Your task to perform on an android device: turn off notifications settings in the gmail app Image 0: 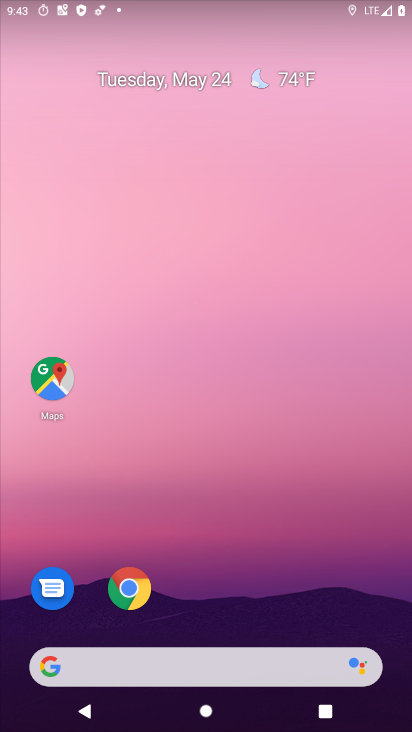
Step 0: drag from (239, 588) to (178, 17)
Your task to perform on an android device: turn off notifications settings in the gmail app Image 1: 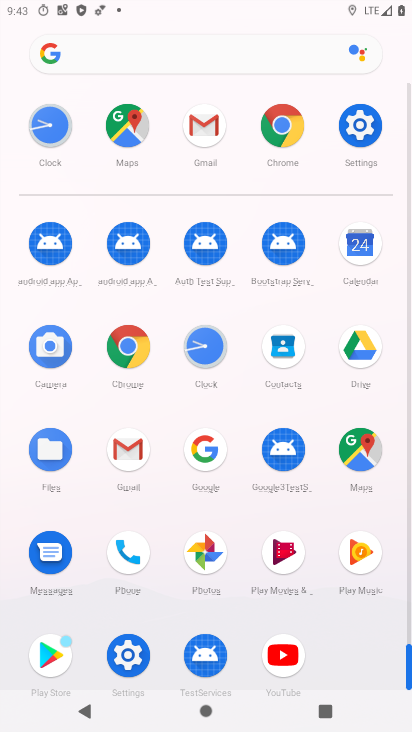
Step 1: drag from (0, 600) to (9, 260)
Your task to perform on an android device: turn off notifications settings in the gmail app Image 2: 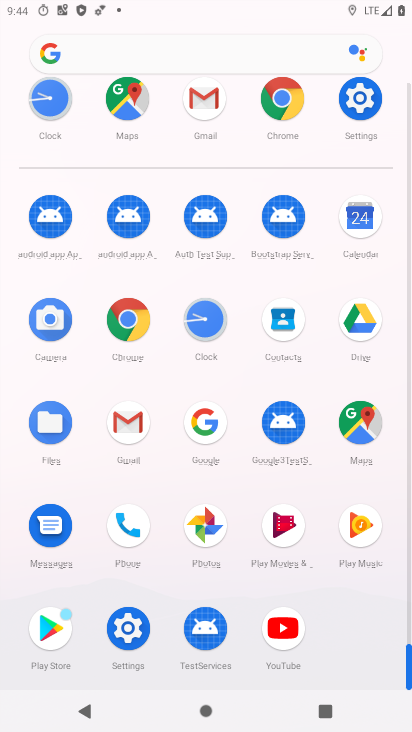
Step 2: click (129, 417)
Your task to perform on an android device: turn off notifications settings in the gmail app Image 3: 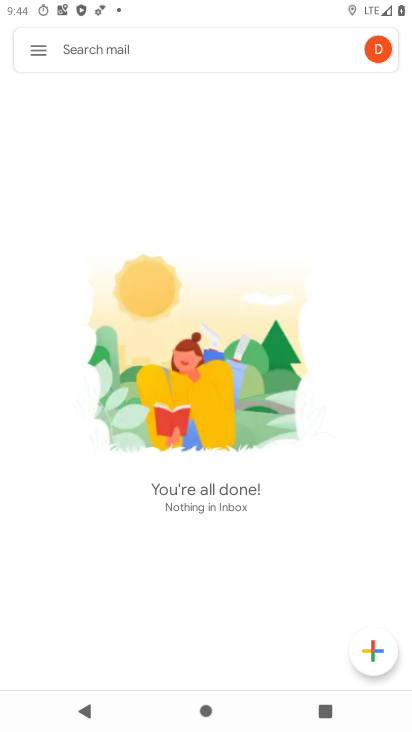
Step 3: click (37, 55)
Your task to perform on an android device: turn off notifications settings in the gmail app Image 4: 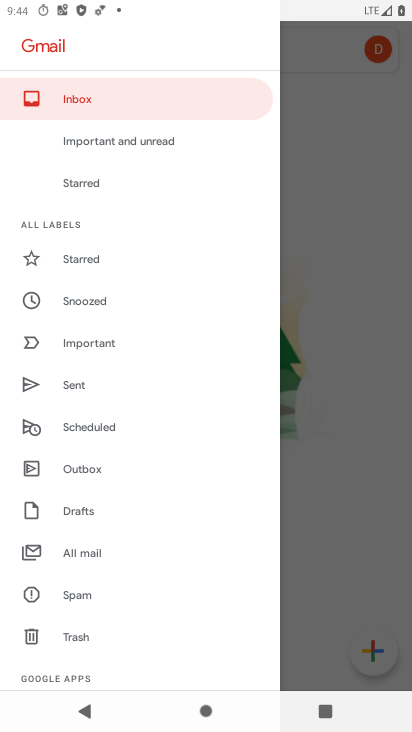
Step 4: drag from (162, 593) to (181, 171)
Your task to perform on an android device: turn off notifications settings in the gmail app Image 5: 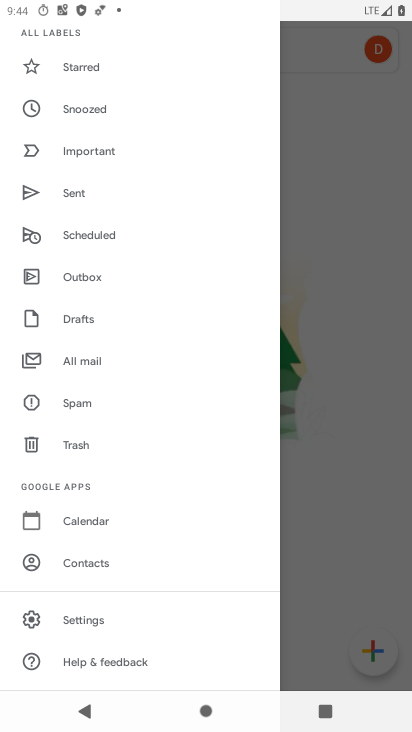
Step 5: click (95, 617)
Your task to perform on an android device: turn off notifications settings in the gmail app Image 6: 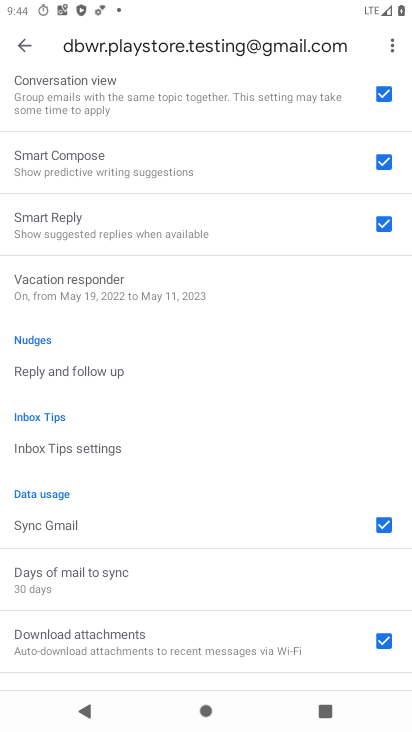
Step 6: drag from (148, 606) to (186, 84)
Your task to perform on an android device: turn off notifications settings in the gmail app Image 7: 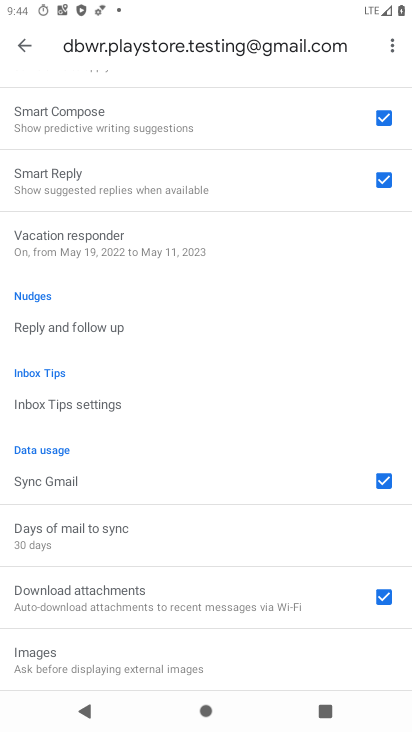
Step 7: drag from (147, 297) to (166, 705)
Your task to perform on an android device: turn off notifications settings in the gmail app Image 8: 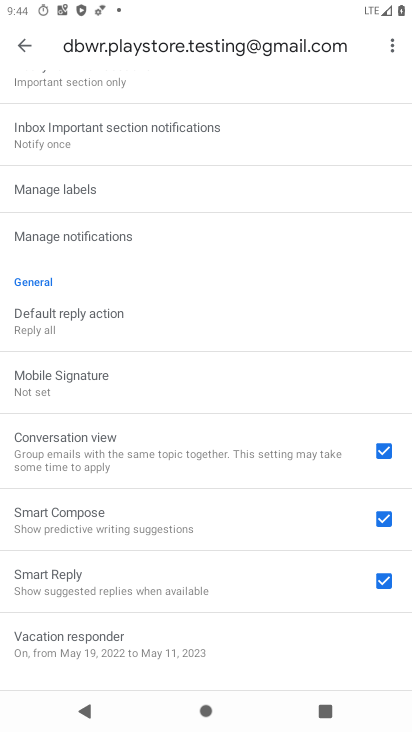
Step 8: click (133, 240)
Your task to perform on an android device: turn off notifications settings in the gmail app Image 9: 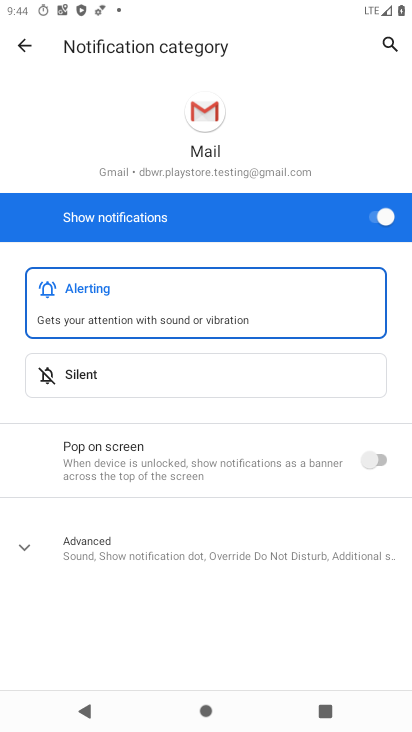
Step 9: click (374, 205)
Your task to perform on an android device: turn off notifications settings in the gmail app Image 10: 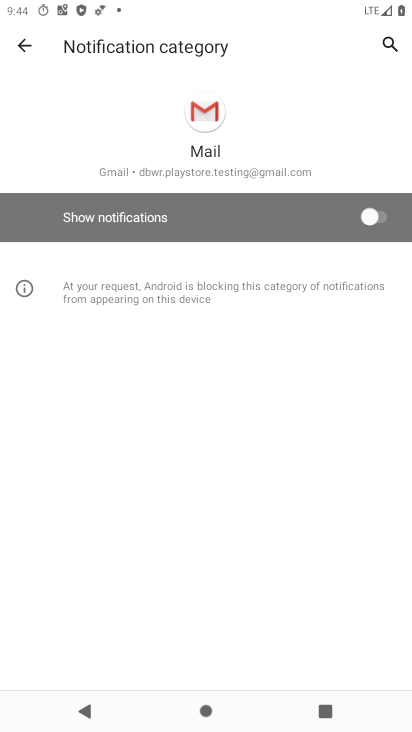
Step 10: task complete